Your task to perform on an android device: Go to privacy settings Image 0: 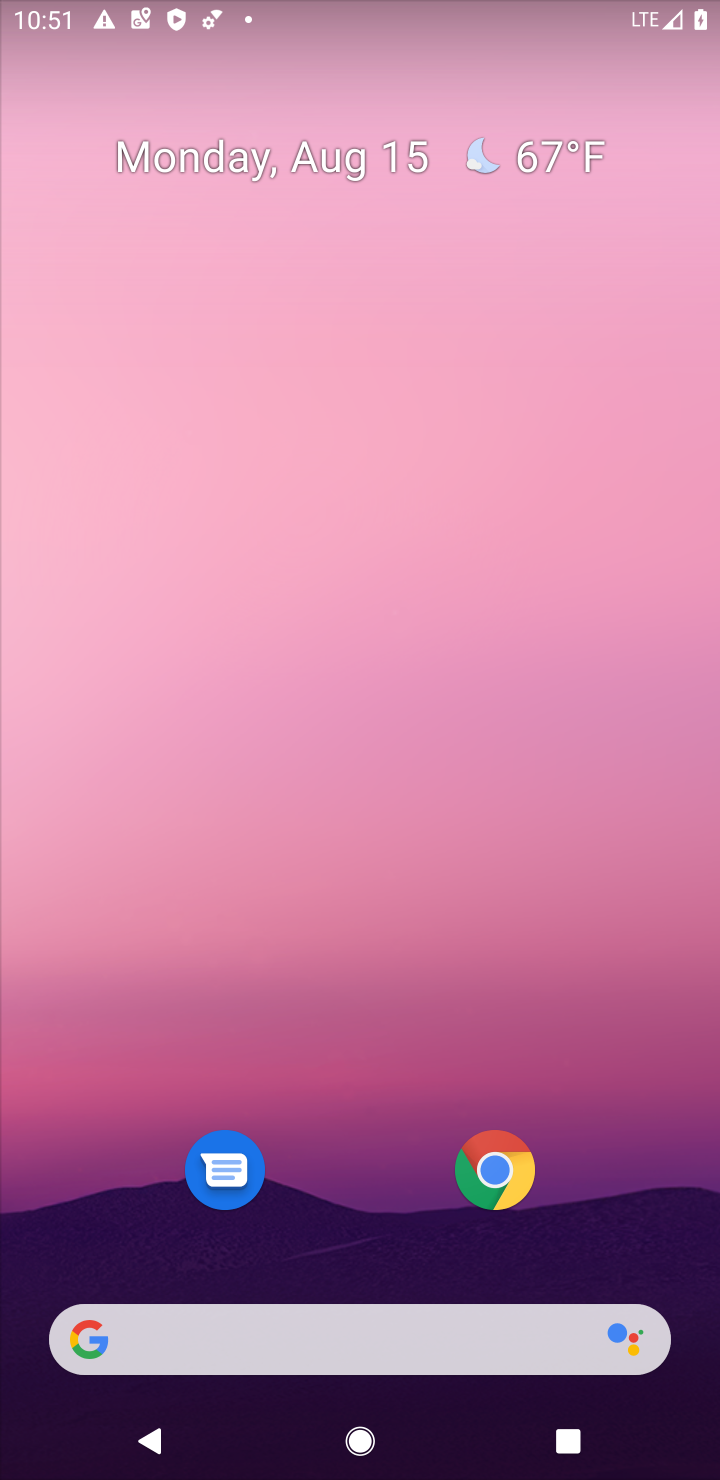
Step 0: drag from (367, 1270) to (440, 0)
Your task to perform on an android device: Go to privacy settings Image 1: 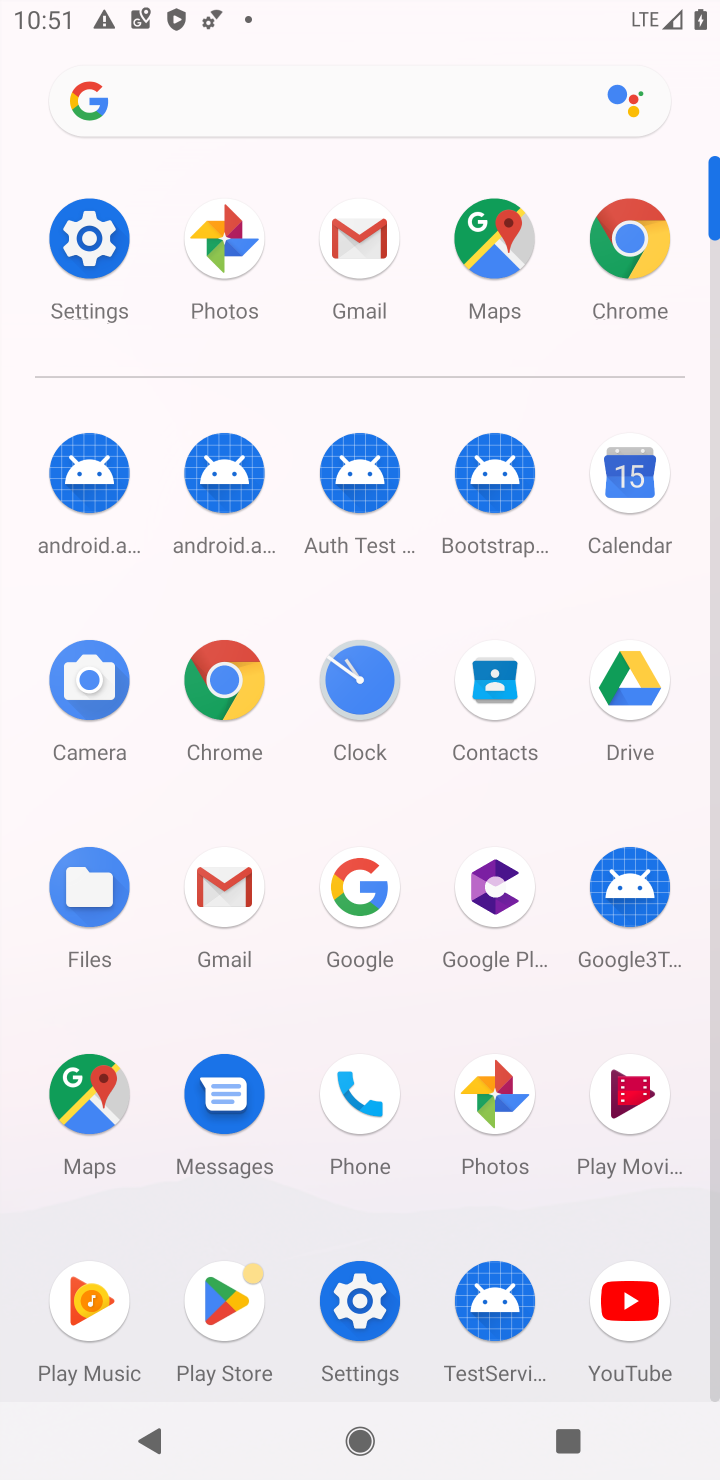
Step 1: click (358, 1293)
Your task to perform on an android device: Go to privacy settings Image 2: 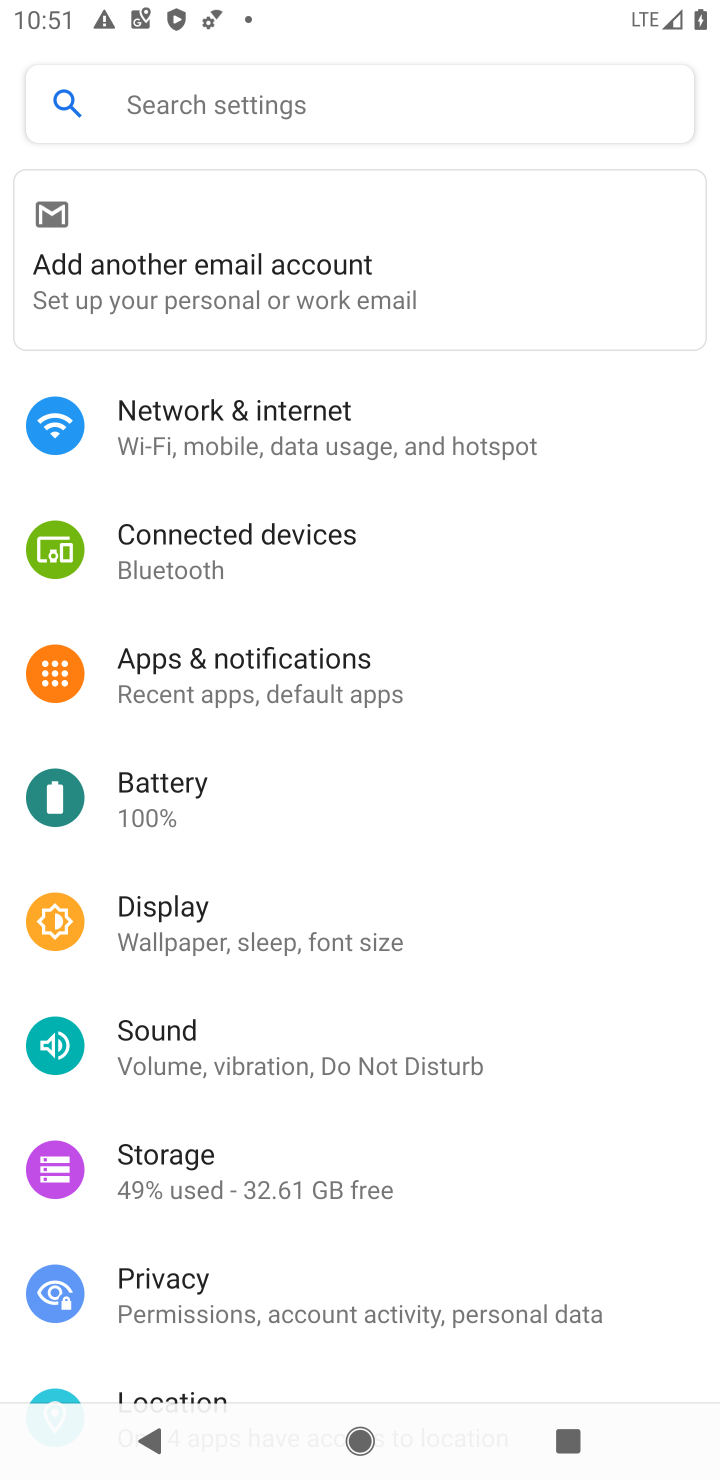
Step 2: click (238, 1279)
Your task to perform on an android device: Go to privacy settings Image 3: 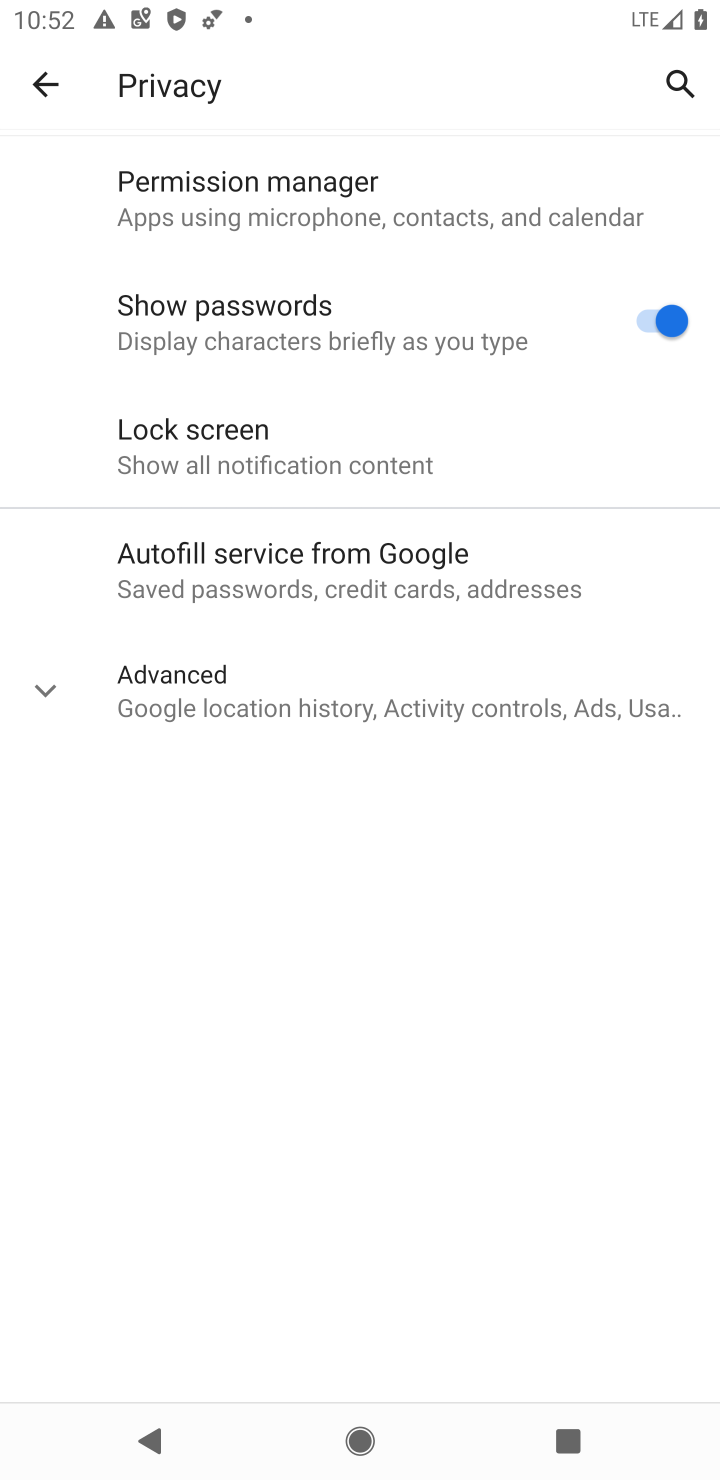
Step 3: click (33, 684)
Your task to perform on an android device: Go to privacy settings Image 4: 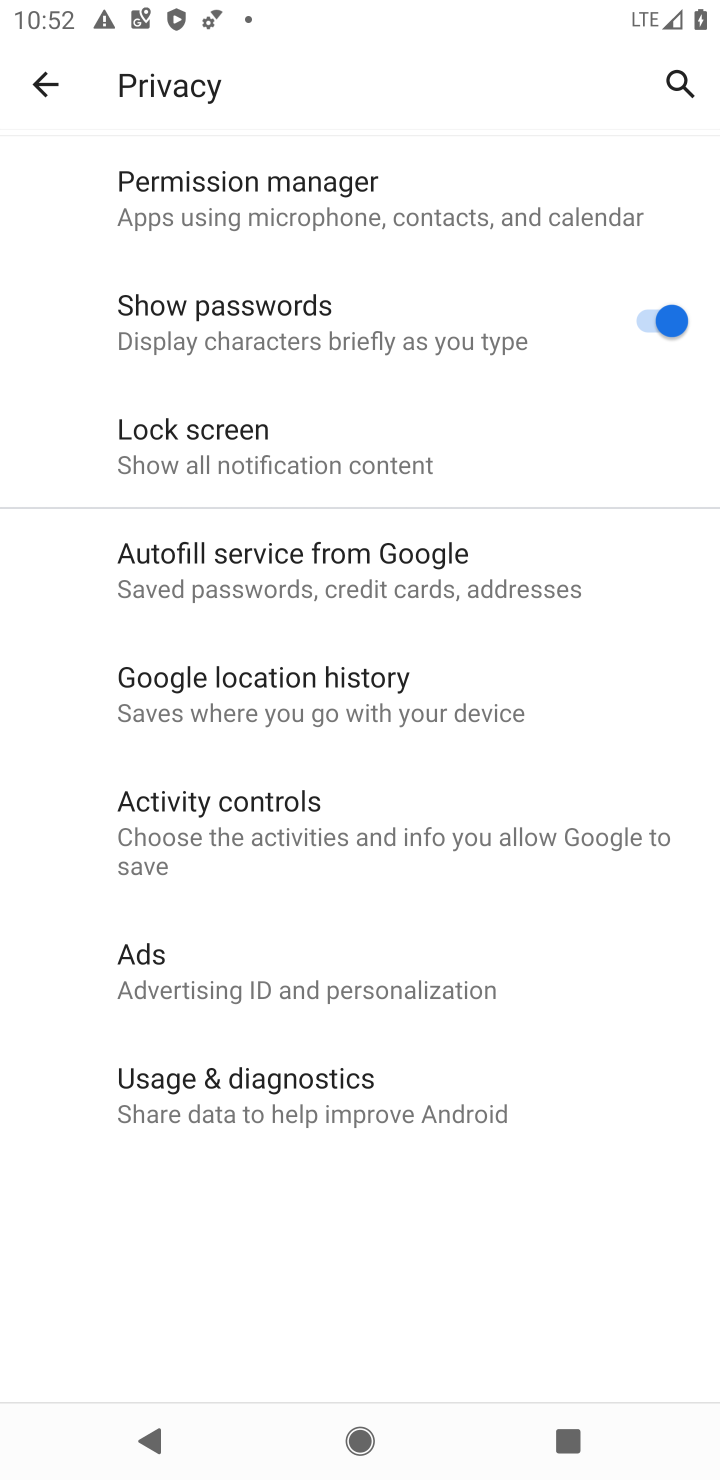
Step 4: task complete